Your task to perform on an android device: Open network settings Image 0: 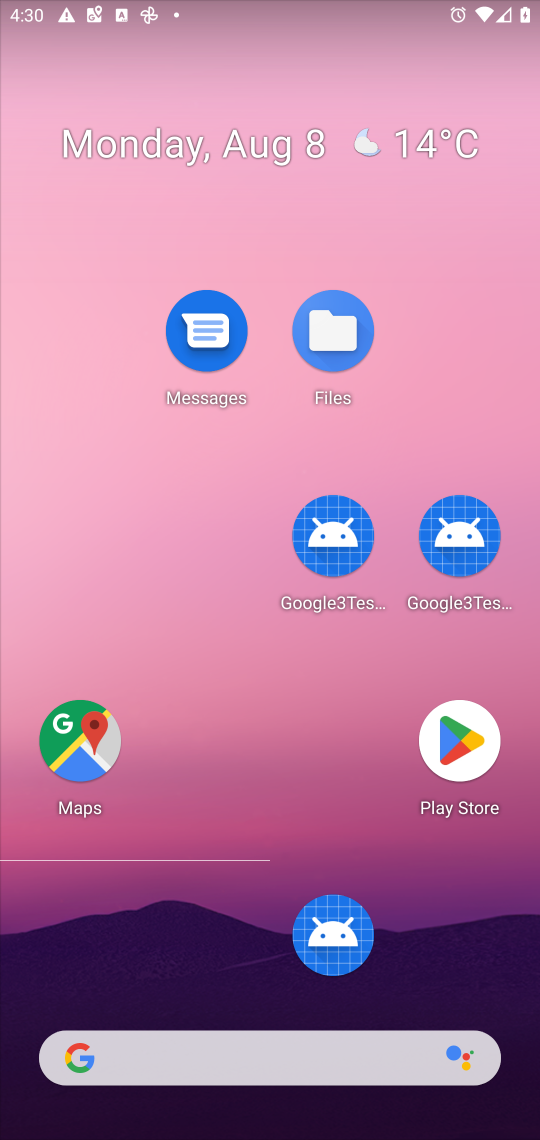
Step 0: drag from (216, 1042) to (173, 267)
Your task to perform on an android device: Open network settings Image 1: 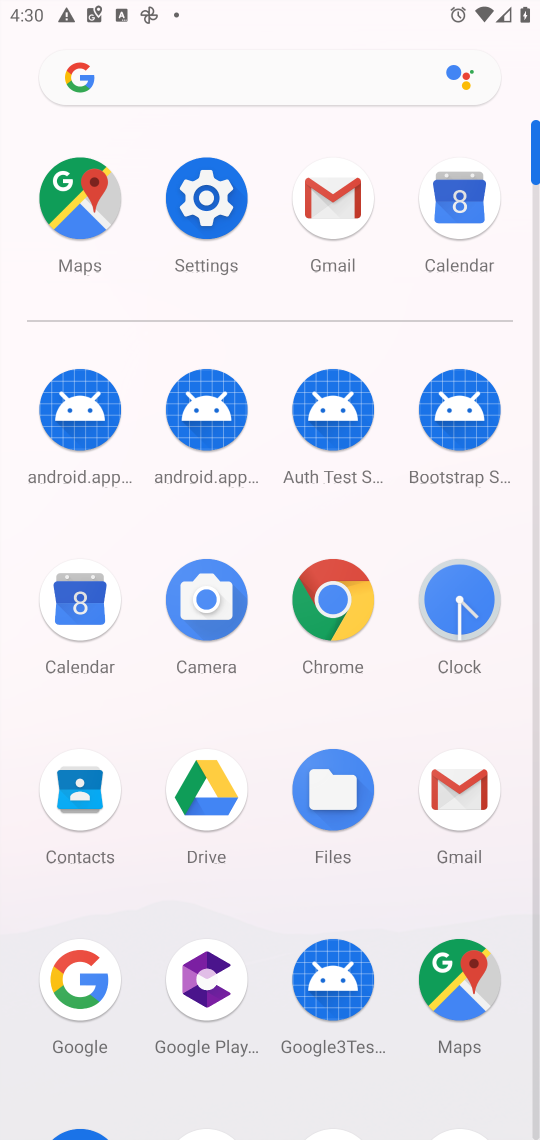
Step 1: click (207, 223)
Your task to perform on an android device: Open network settings Image 2: 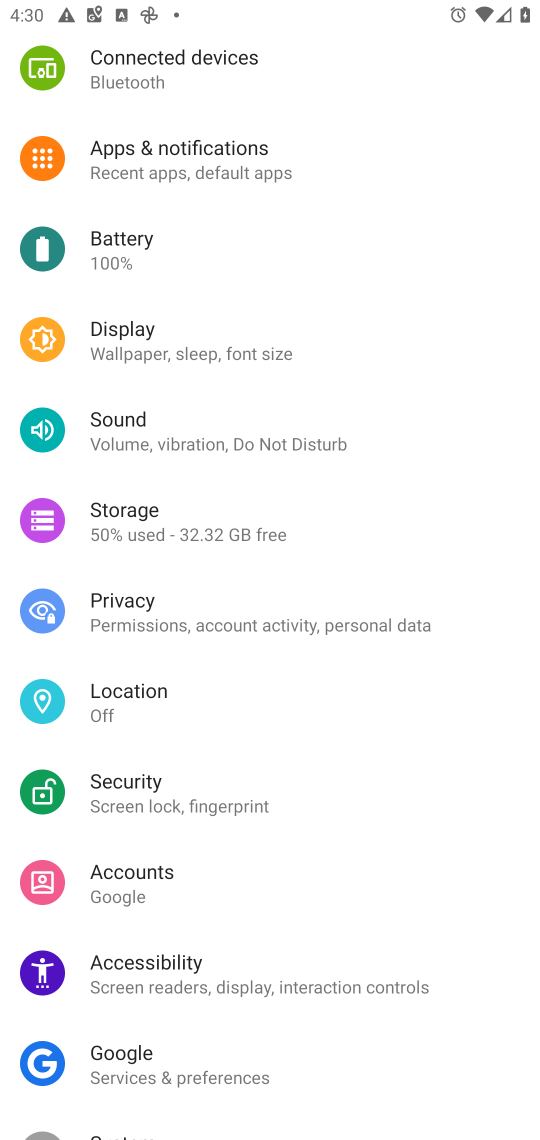
Step 2: drag from (468, 315) to (483, 766)
Your task to perform on an android device: Open network settings Image 3: 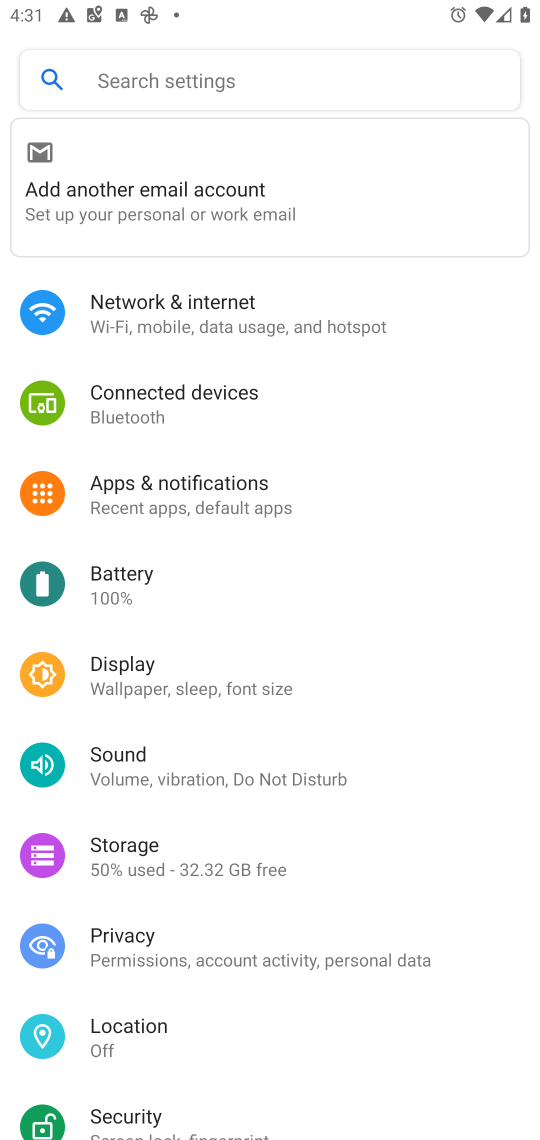
Step 3: click (296, 339)
Your task to perform on an android device: Open network settings Image 4: 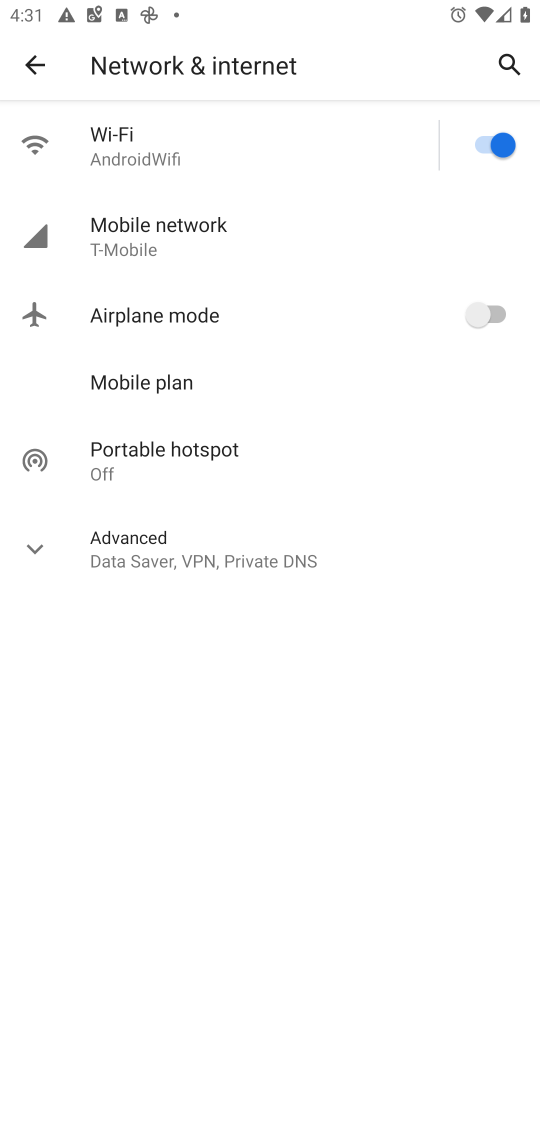
Step 4: task complete